Your task to perform on an android device: Open the stopwatch Image 0: 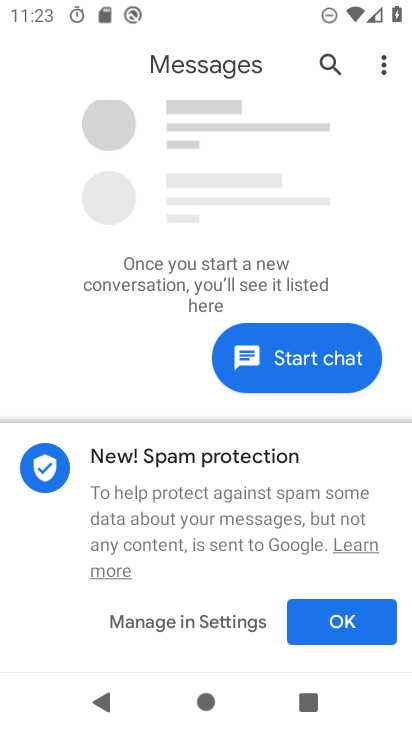
Step 0: press home button
Your task to perform on an android device: Open the stopwatch Image 1: 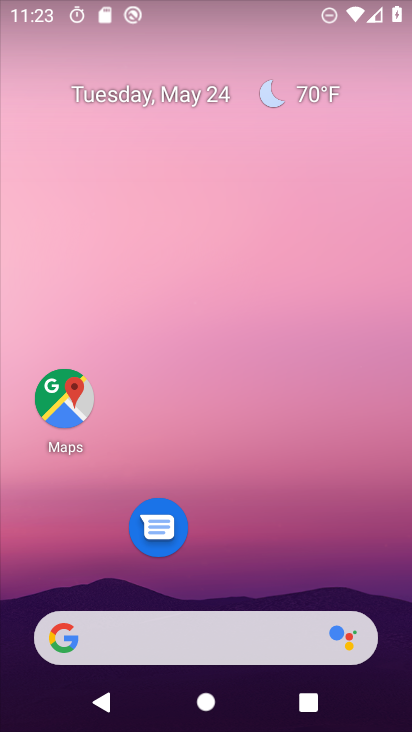
Step 1: drag from (253, 529) to (286, 97)
Your task to perform on an android device: Open the stopwatch Image 2: 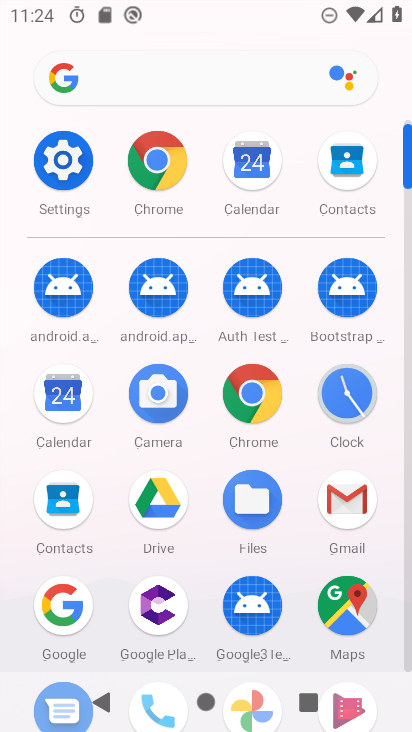
Step 2: click (349, 392)
Your task to perform on an android device: Open the stopwatch Image 3: 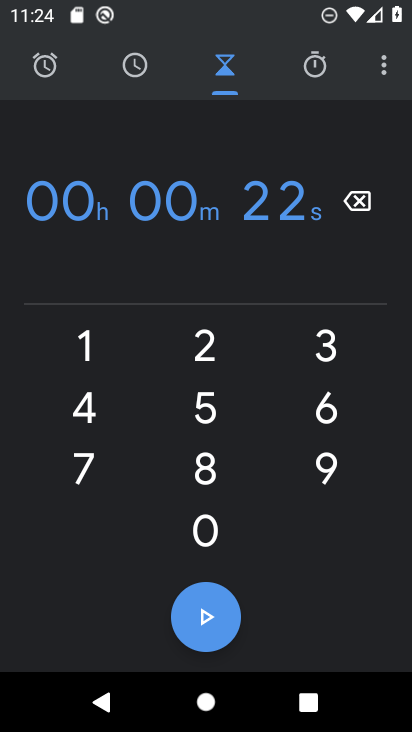
Step 3: click (319, 70)
Your task to perform on an android device: Open the stopwatch Image 4: 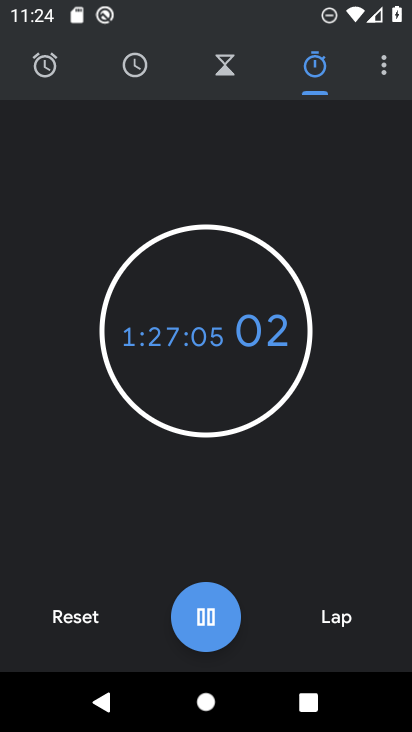
Step 4: task complete